Your task to perform on an android device: Go to battery settings Image 0: 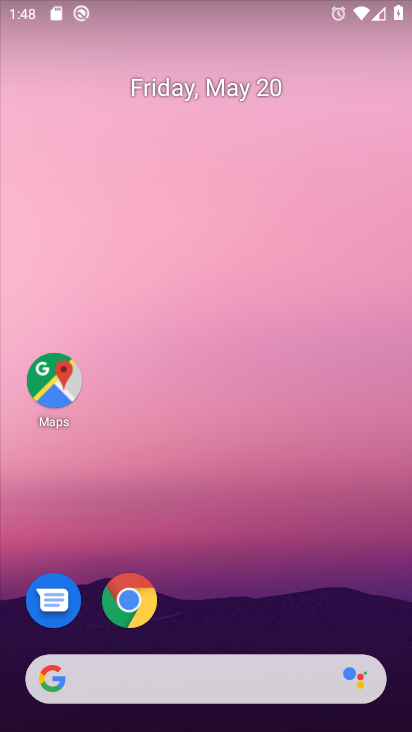
Step 0: drag from (223, 625) to (311, 22)
Your task to perform on an android device: Go to battery settings Image 1: 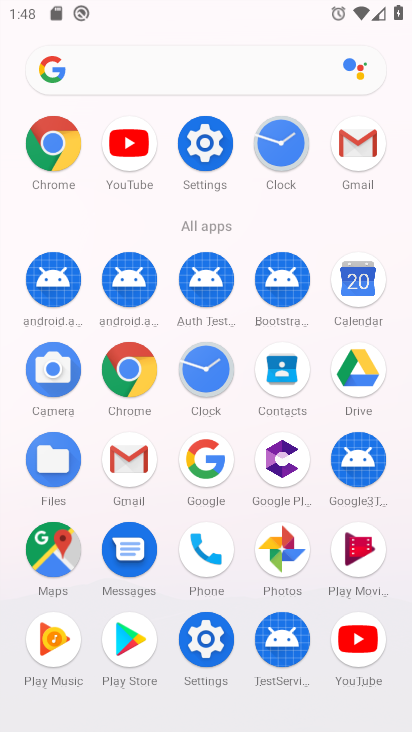
Step 1: click (214, 650)
Your task to perform on an android device: Go to battery settings Image 2: 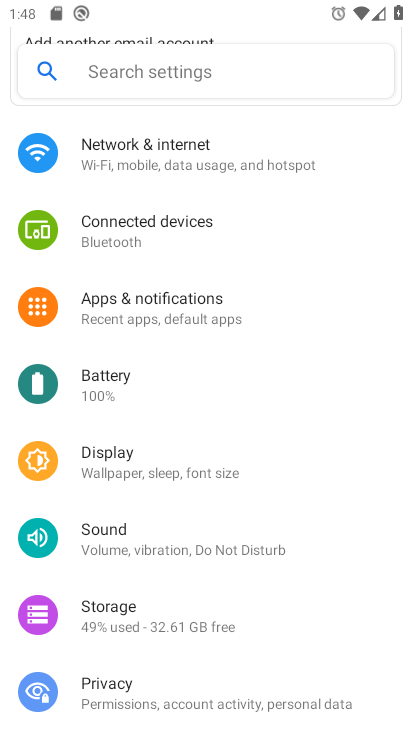
Step 2: click (147, 395)
Your task to perform on an android device: Go to battery settings Image 3: 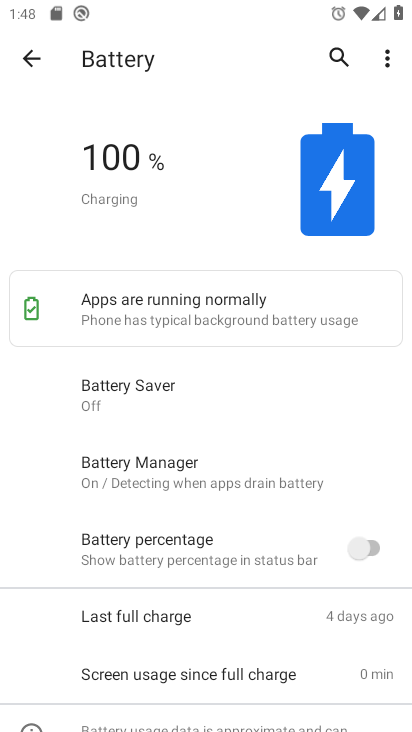
Step 3: task complete